Your task to perform on an android device: turn off location Image 0: 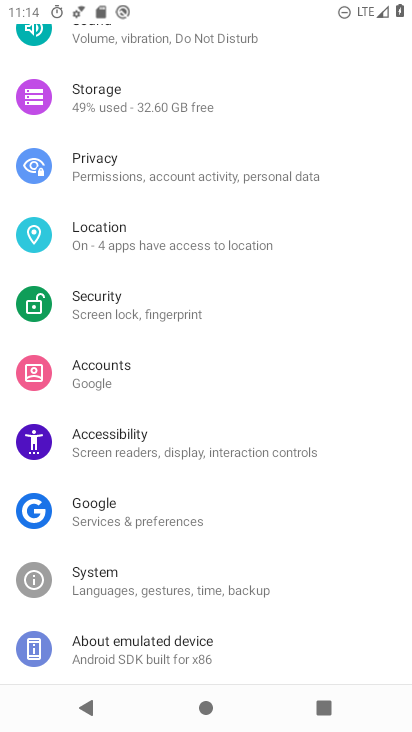
Step 0: drag from (250, 680) to (172, 266)
Your task to perform on an android device: turn off location Image 1: 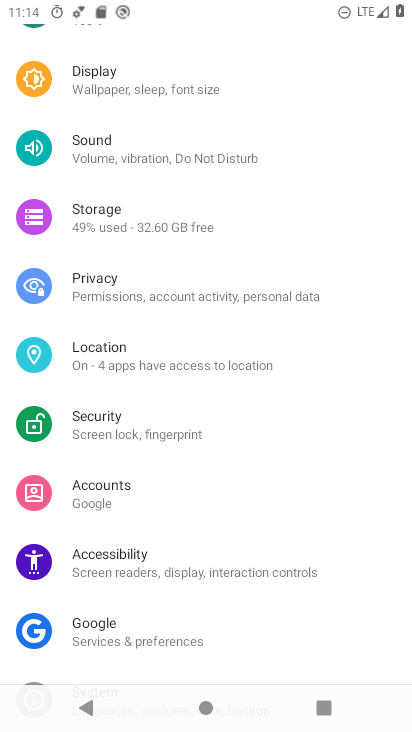
Step 1: press back button
Your task to perform on an android device: turn off location Image 2: 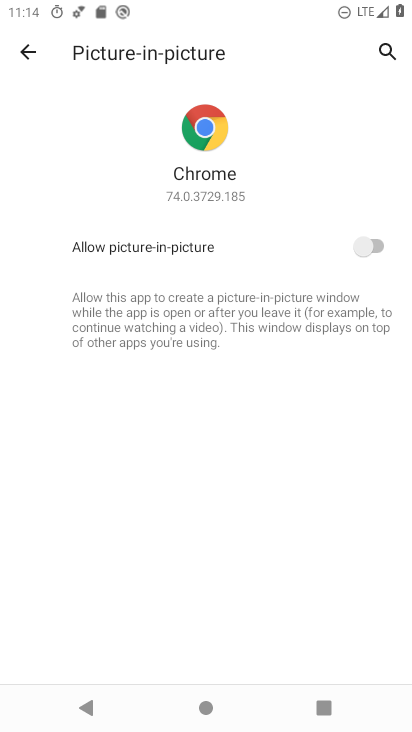
Step 2: press home button
Your task to perform on an android device: turn off location Image 3: 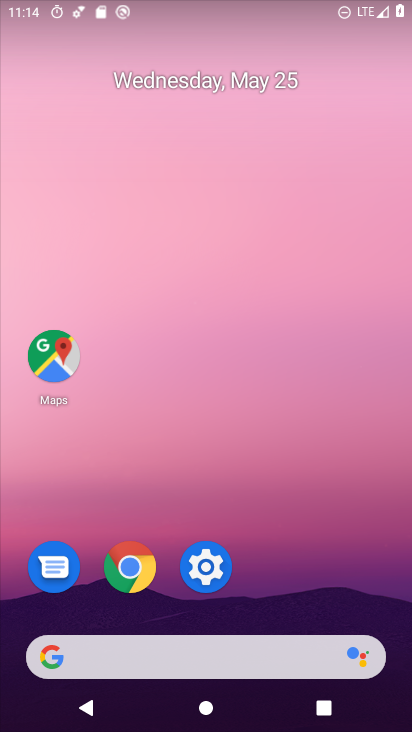
Step 3: drag from (287, 610) to (115, 13)
Your task to perform on an android device: turn off location Image 4: 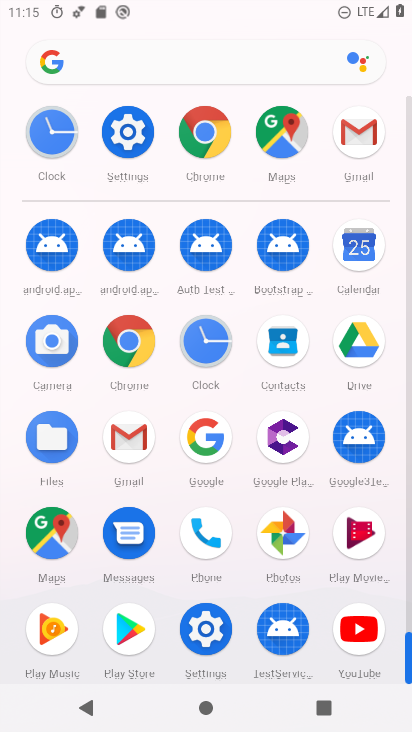
Step 4: click (127, 130)
Your task to perform on an android device: turn off location Image 5: 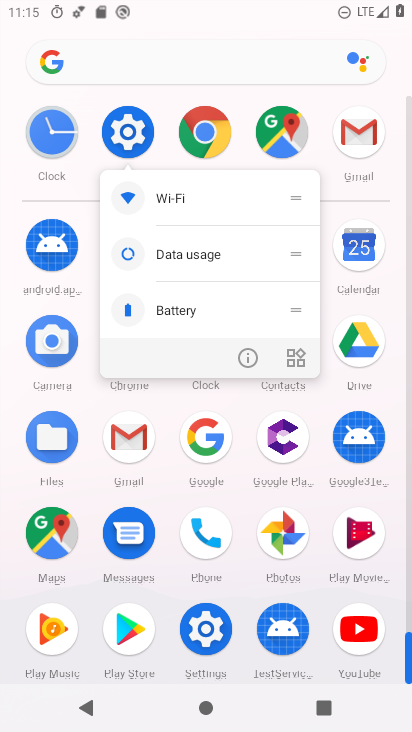
Step 5: click (133, 139)
Your task to perform on an android device: turn off location Image 6: 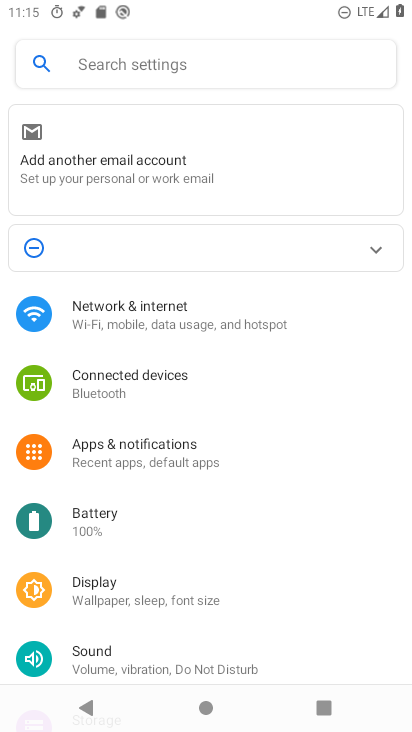
Step 6: drag from (144, 551) to (98, 244)
Your task to perform on an android device: turn off location Image 7: 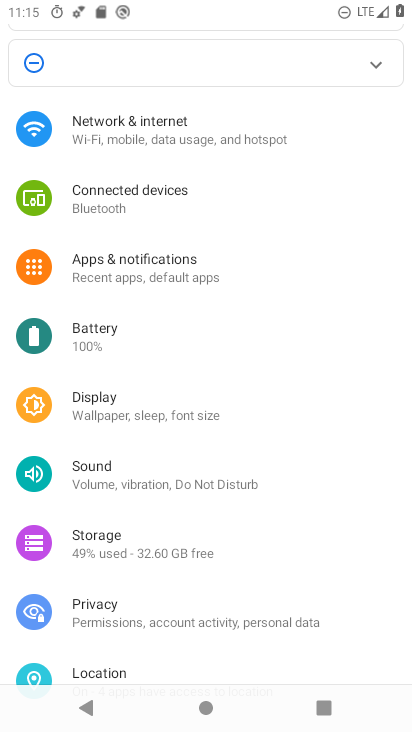
Step 7: drag from (184, 456) to (180, 136)
Your task to perform on an android device: turn off location Image 8: 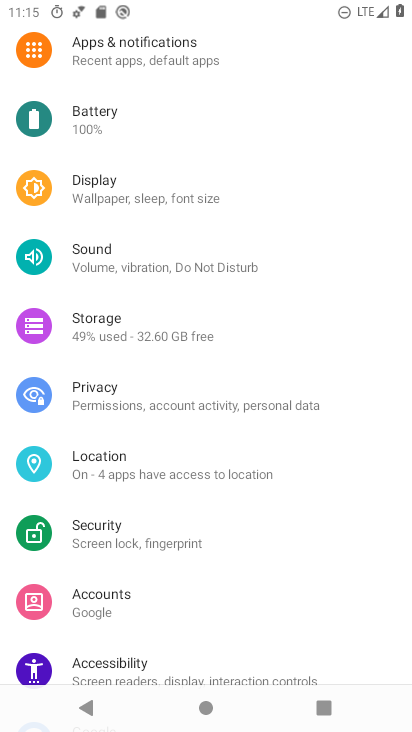
Step 8: drag from (222, 496) to (239, 257)
Your task to perform on an android device: turn off location Image 9: 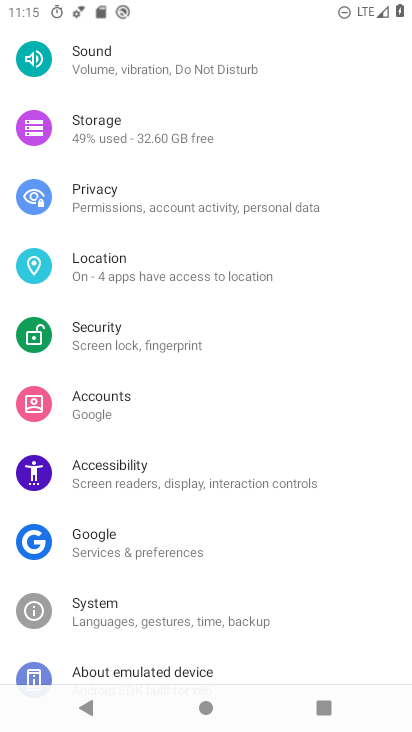
Step 9: click (85, 426)
Your task to perform on an android device: turn off location Image 10: 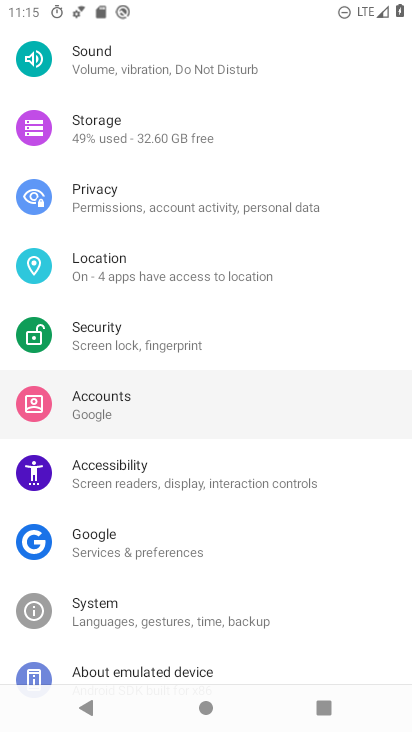
Step 10: click (103, 403)
Your task to perform on an android device: turn off location Image 11: 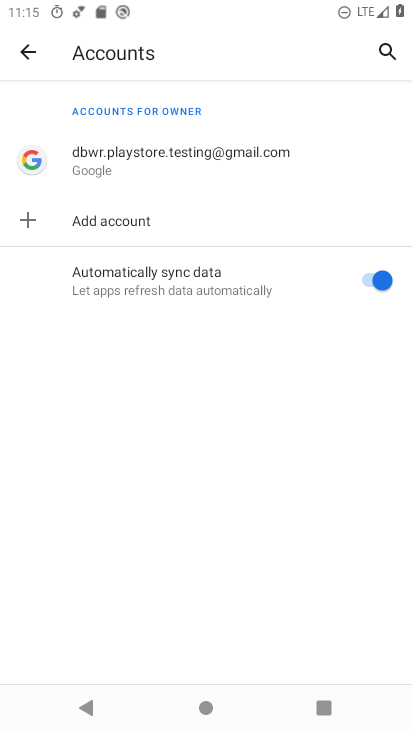
Step 11: click (104, 403)
Your task to perform on an android device: turn off location Image 12: 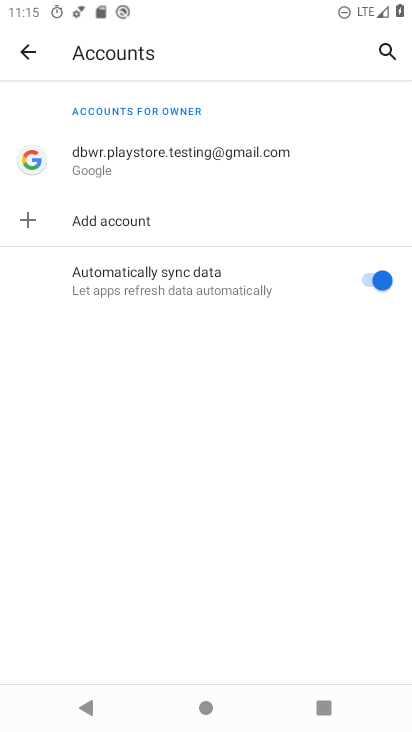
Step 12: click (124, 408)
Your task to perform on an android device: turn off location Image 13: 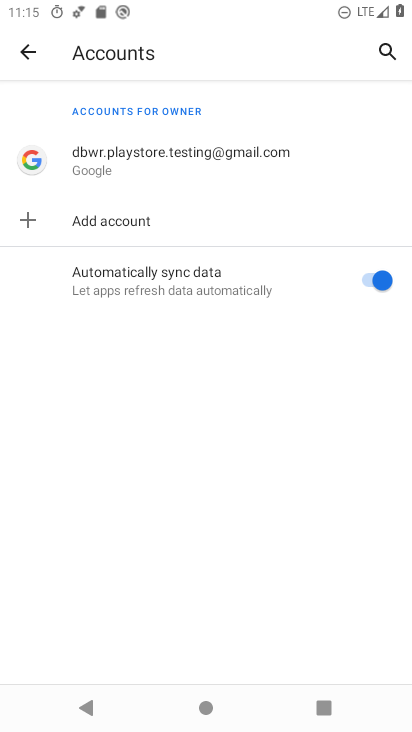
Step 13: click (138, 416)
Your task to perform on an android device: turn off location Image 14: 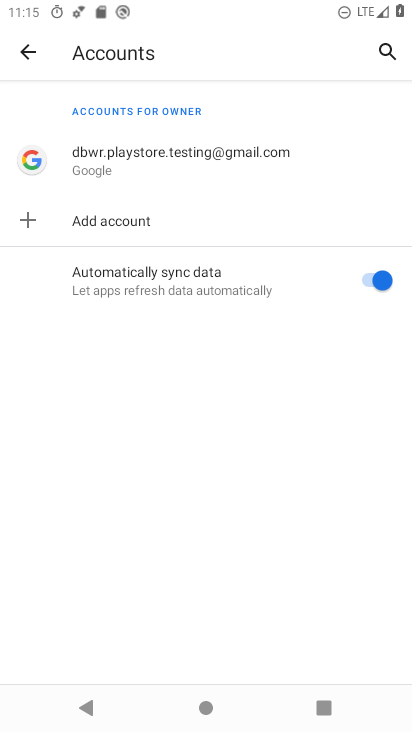
Step 14: click (20, 47)
Your task to perform on an android device: turn off location Image 15: 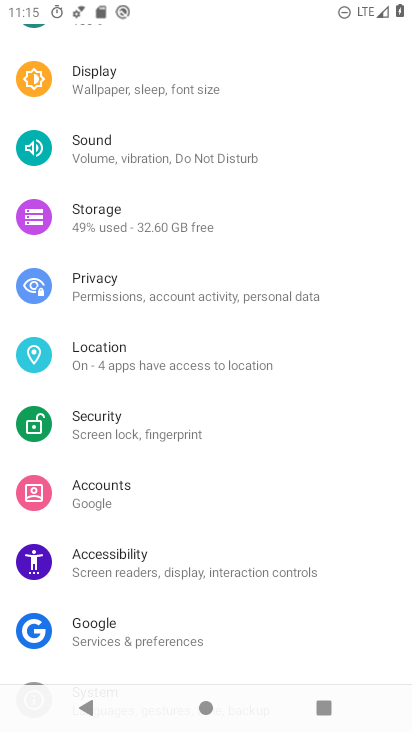
Step 15: click (125, 362)
Your task to perform on an android device: turn off location Image 16: 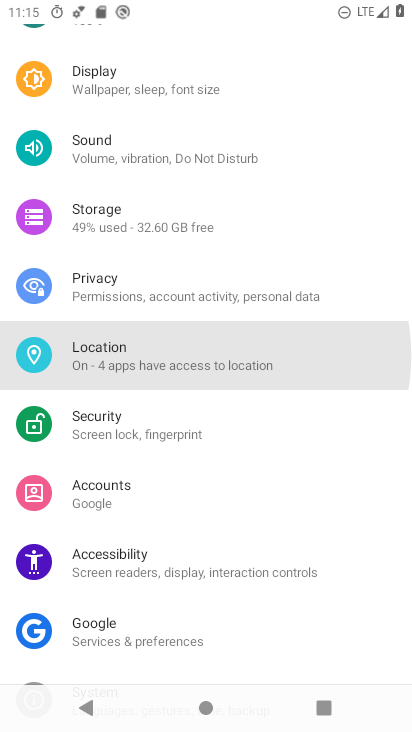
Step 16: click (125, 362)
Your task to perform on an android device: turn off location Image 17: 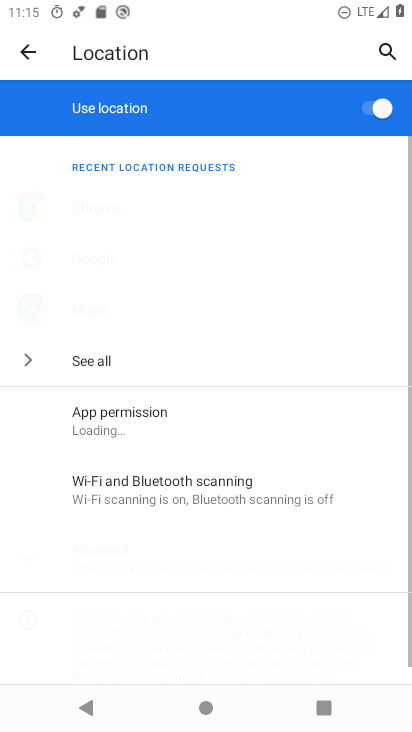
Step 17: click (131, 359)
Your task to perform on an android device: turn off location Image 18: 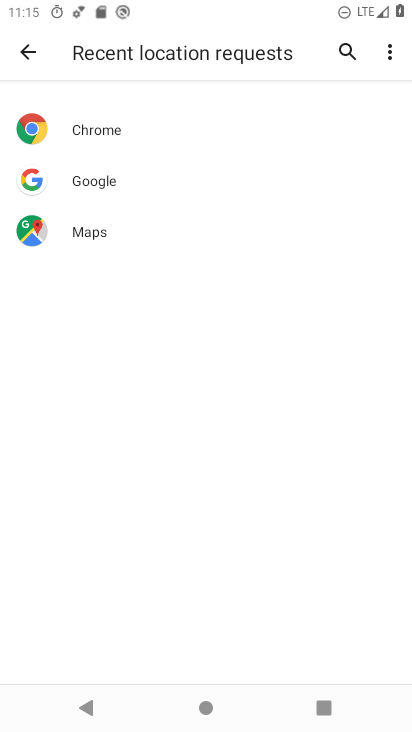
Step 18: click (22, 49)
Your task to perform on an android device: turn off location Image 19: 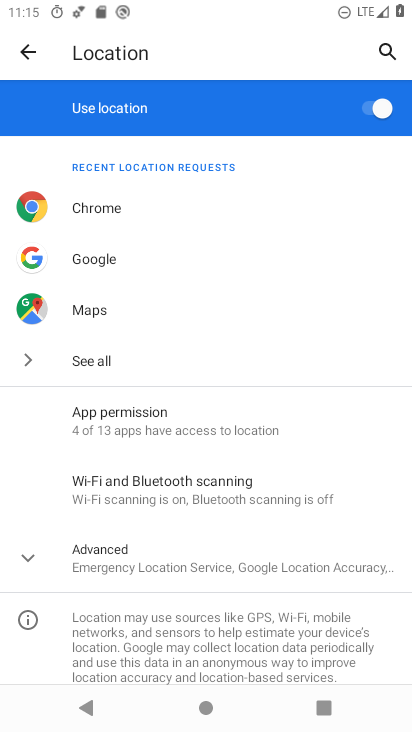
Step 19: click (174, 560)
Your task to perform on an android device: turn off location Image 20: 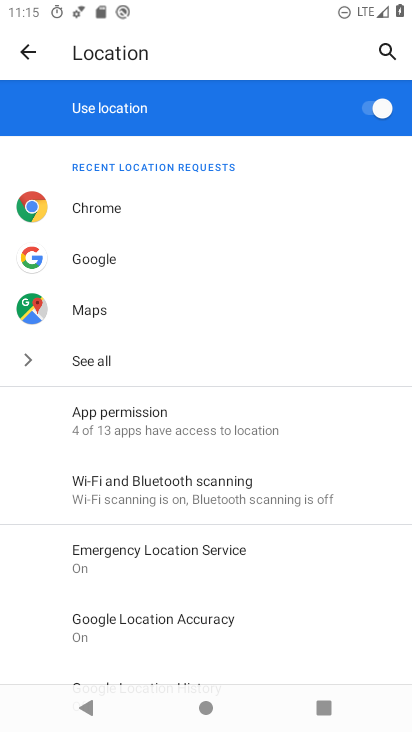
Step 20: click (377, 104)
Your task to perform on an android device: turn off location Image 21: 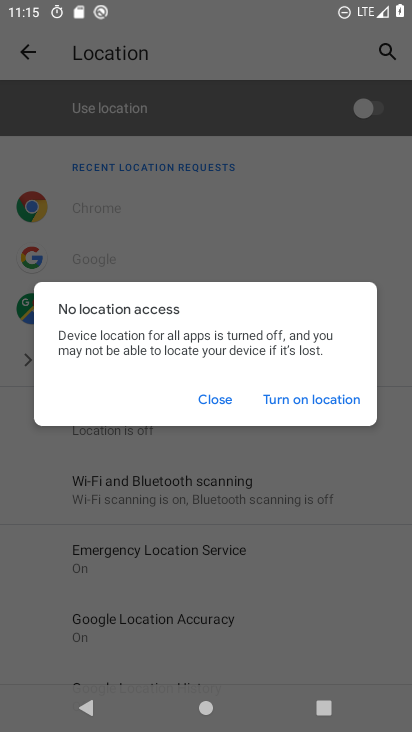
Step 21: click (227, 395)
Your task to perform on an android device: turn off location Image 22: 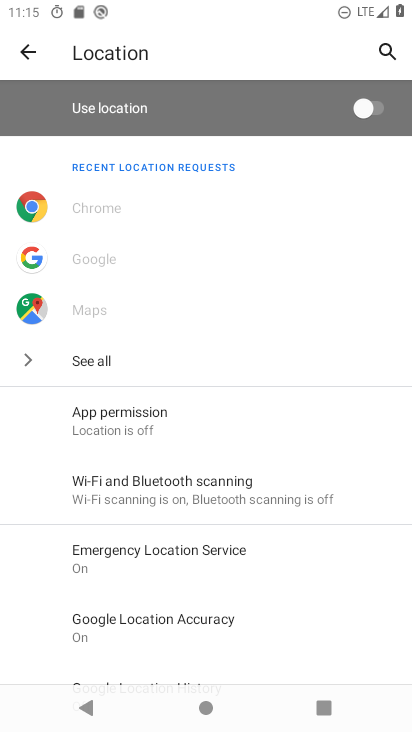
Step 22: task complete